Your task to perform on an android device: Open Android settings Image 0: 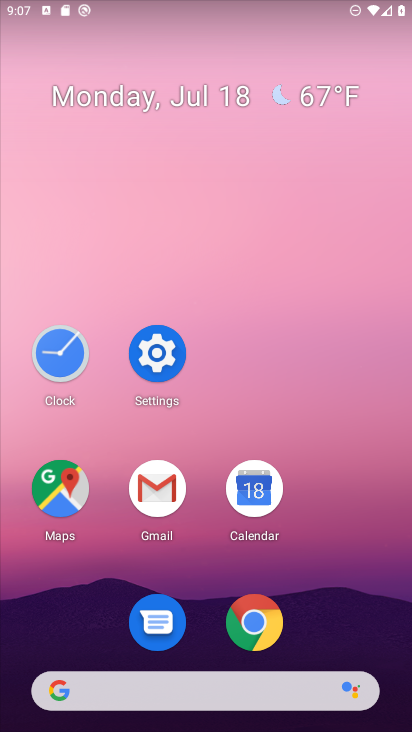
Step 0: click (179, 339)
Your task to perform on an android device: Open Android settings Image 1: 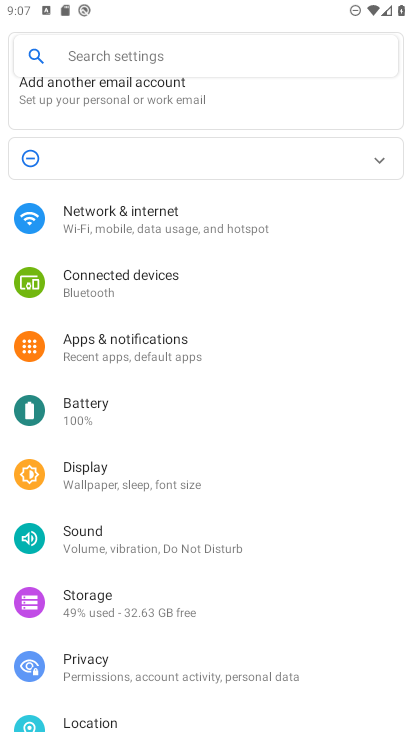
Step 1: task complete